Your task to perform on an android device: turn on airplane mode Image 0: 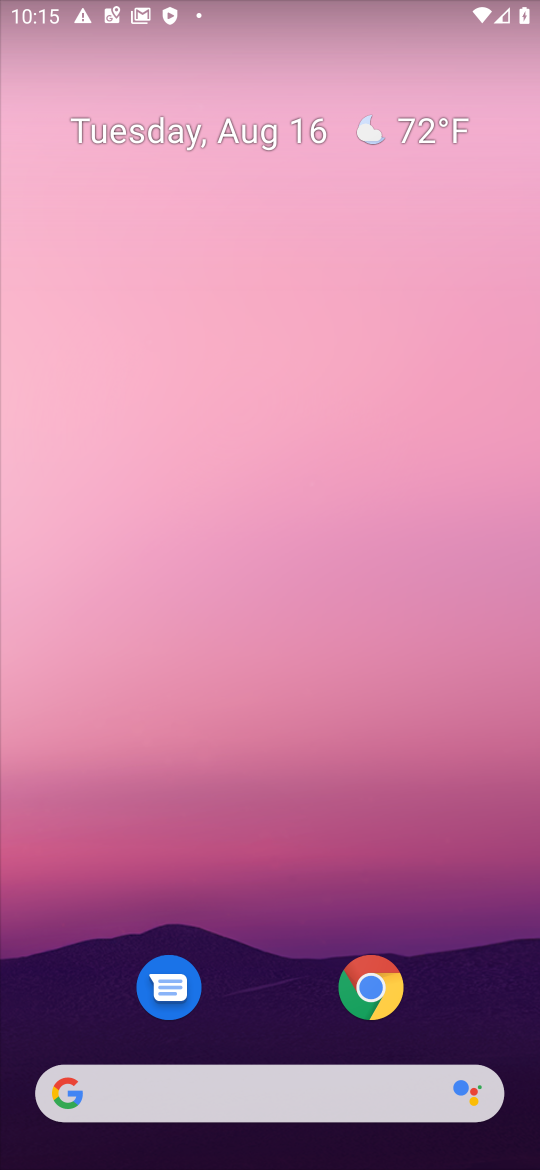
Step 0: drag from (25, 1156) to (259, 697)
Your task to perform on an android device: turn on airplane mode Image 1: 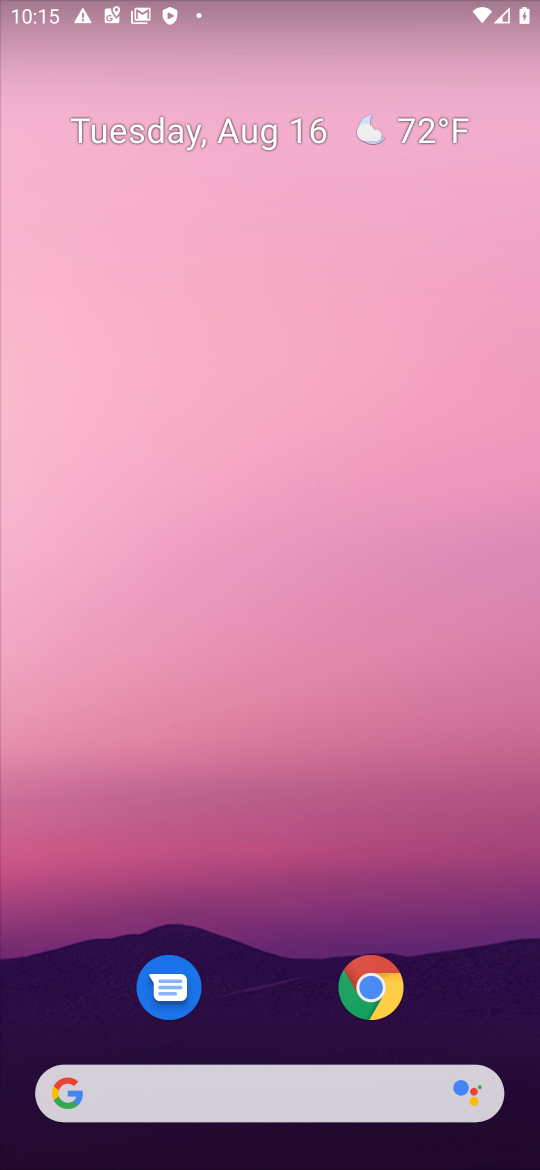
Step 1: drag from (28, 1135) to (143, 568)
Your task to perform on an android device: turn on airplane mode Image 2: 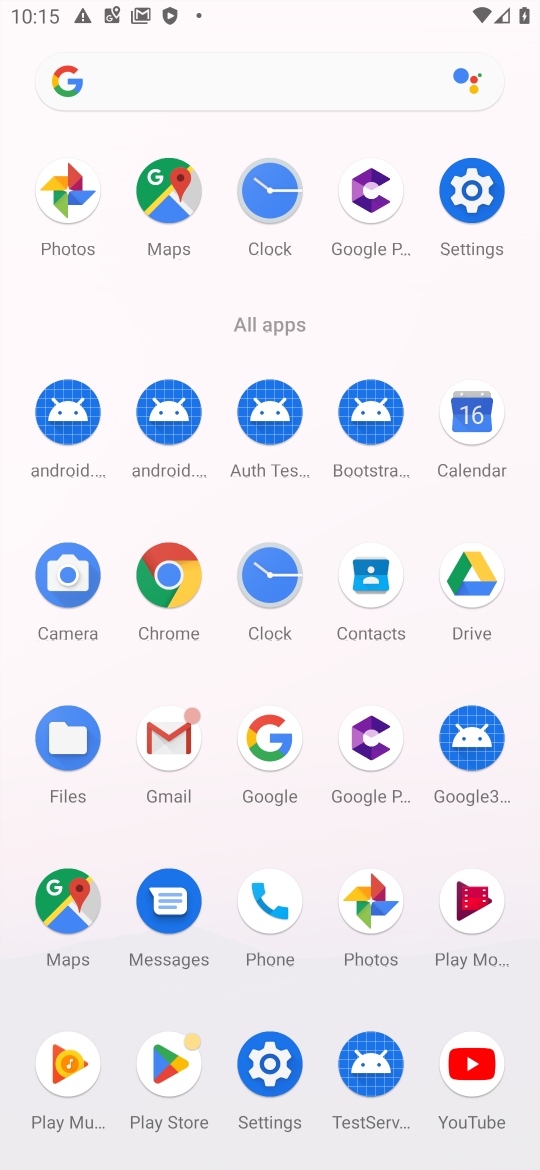
Step 2: click (262, 1056)
Your task to perform on an android device: turn on airplane mode Image 3: 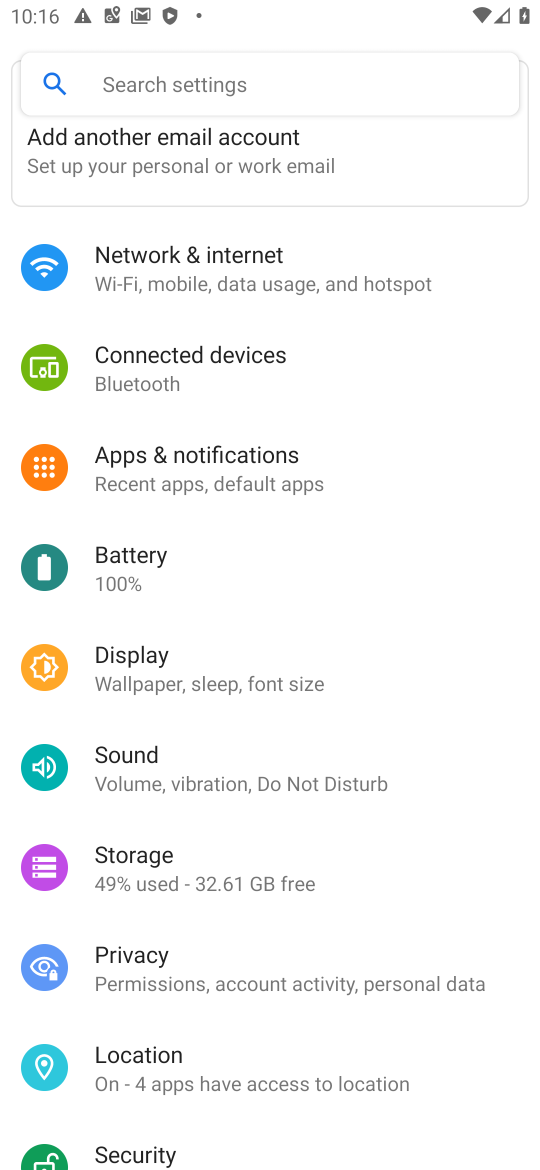
Step 3: click (218, 268)
Your task to perform on an android device: turn on airplane mode Image 4: 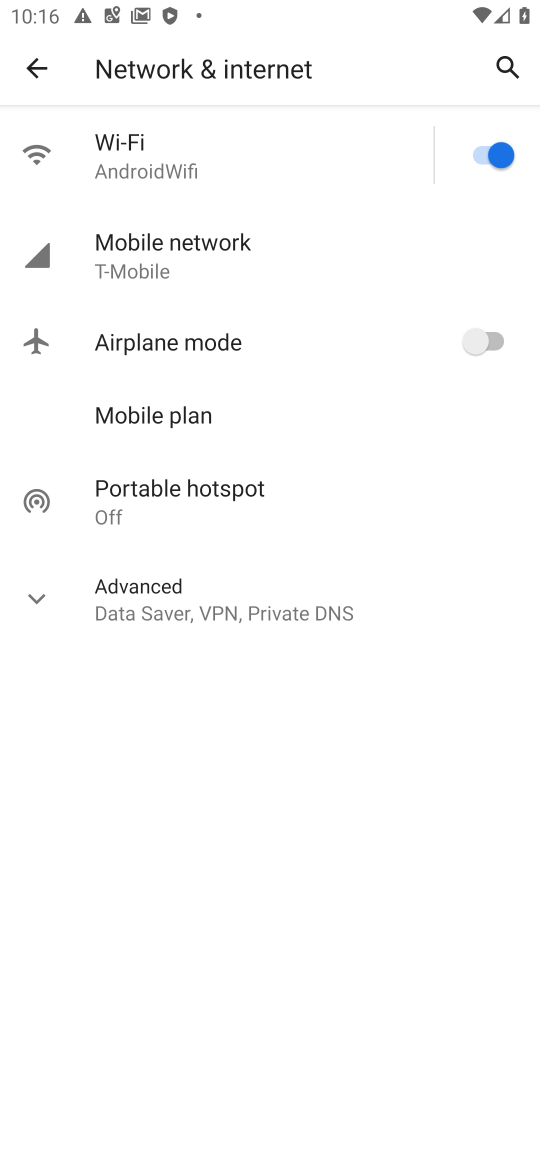
Step 4: click (482, 346)
Your task to perform on an android device: turn on airplane mode Image 5: 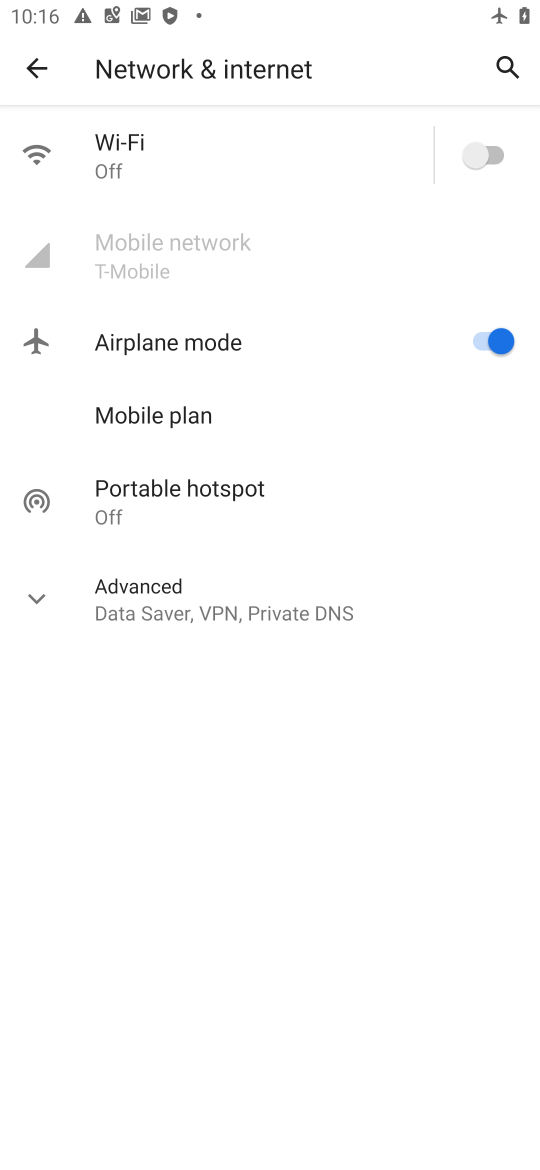
Step 5: task complete